Your task to perform on an android device: What is the news today? Image 0: 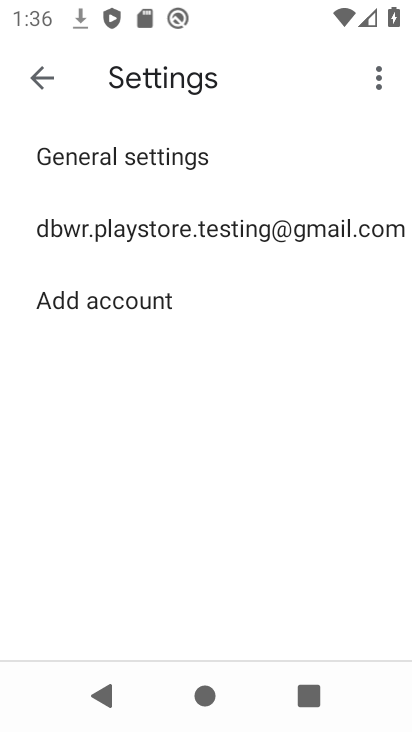
Step 0: press back button
Your task to perform on an android device: What is the news today? Image 1: 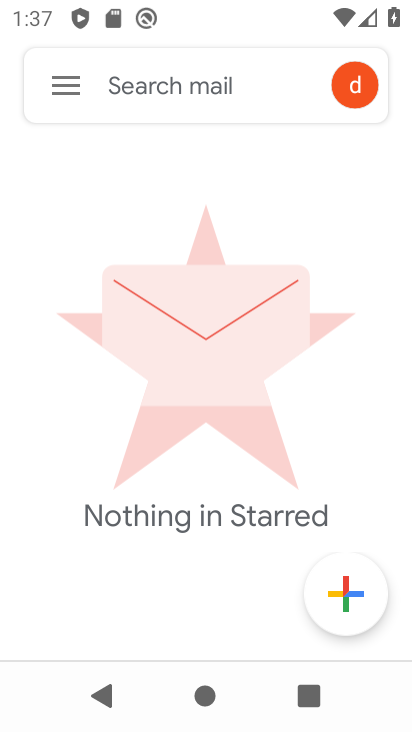
Step 1: press back button
Your task to perform on an android device: What is the news today? Image 2: 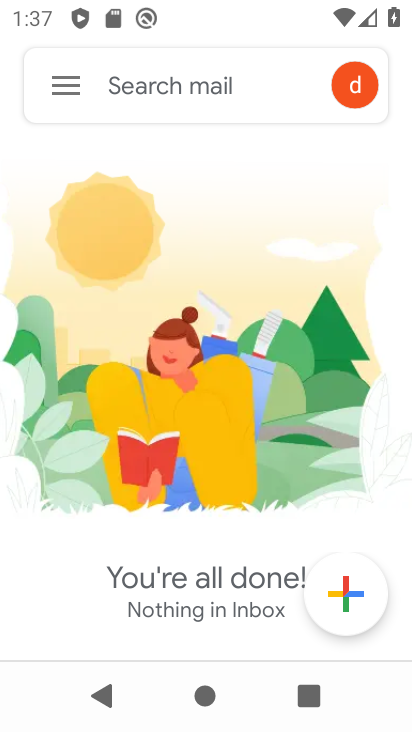
Step 2: press back button
Your task to perform on an android device: What is the news today? Image 3: 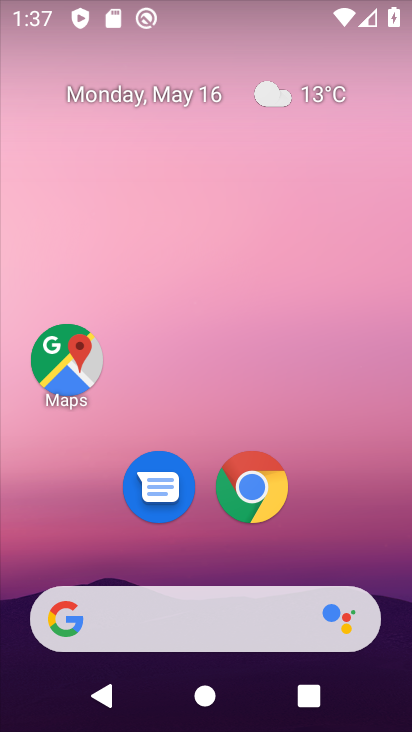
Step 3: drag from (356, 536) to (261, 0)
Your task to perform on an android device: What is the news today? Image 4: 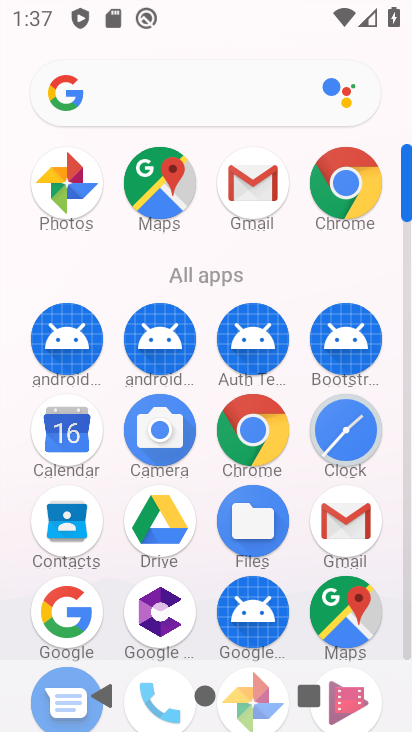
Step 4: drag from (11, 542) to (43, 273)
Your task to perform on an android device: What is the news today? Image 5: 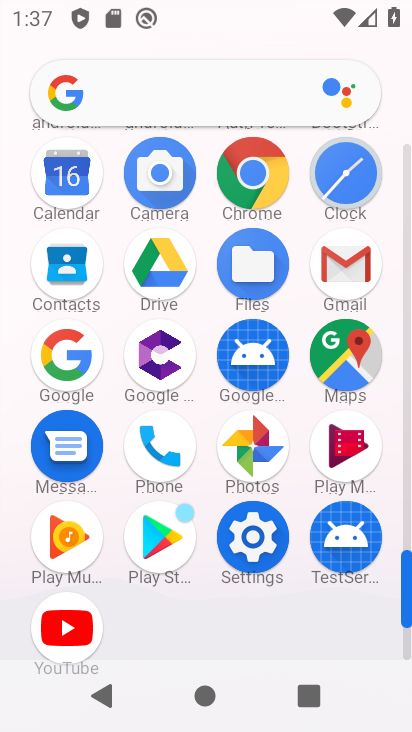
Step 5: click (256, 161)
Your task to perform on an android device: What is the news today? Image 6: 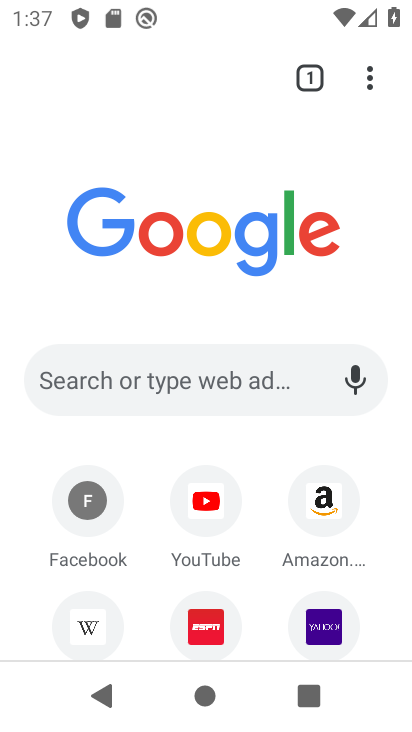
Step 6: click (199, 373)
Your task to perform on an android device: What is the news today? Image 7: 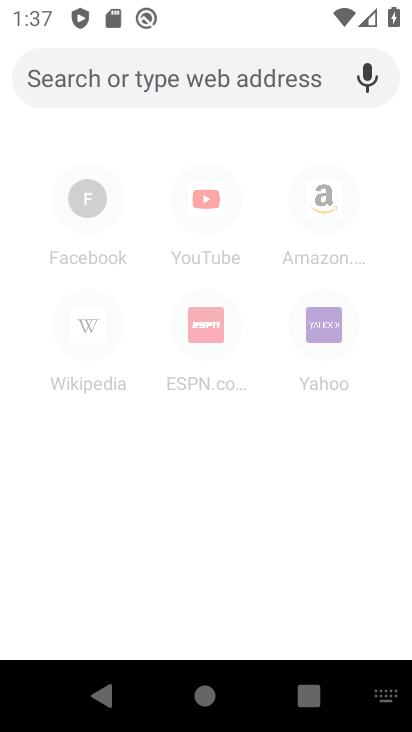
Step 7: click (62, 730)
Your task to perform on an android device: What is the news today? Image 8: 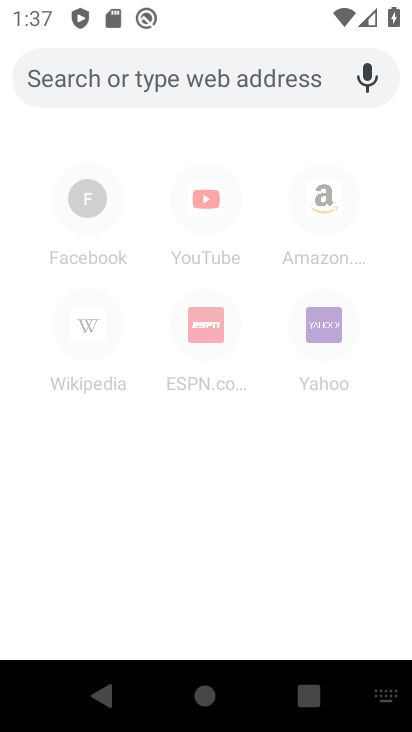
Step 8: type " What is the news today?"
Your task to perform on an android device: What is the news today? Image 9: 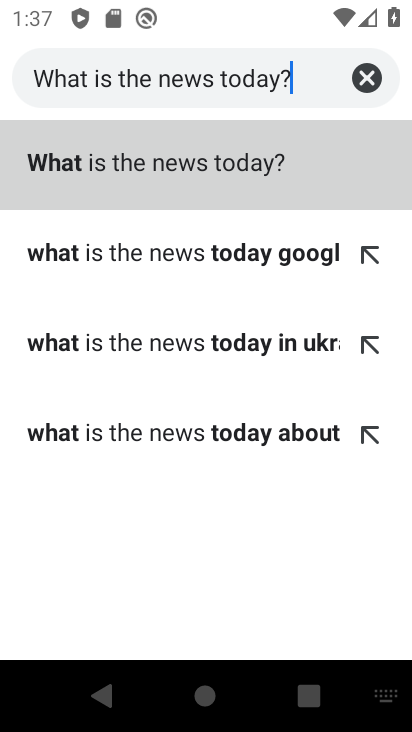
Step 9: type ""
Your task to perform on an android device: What is the news today? Image 10: 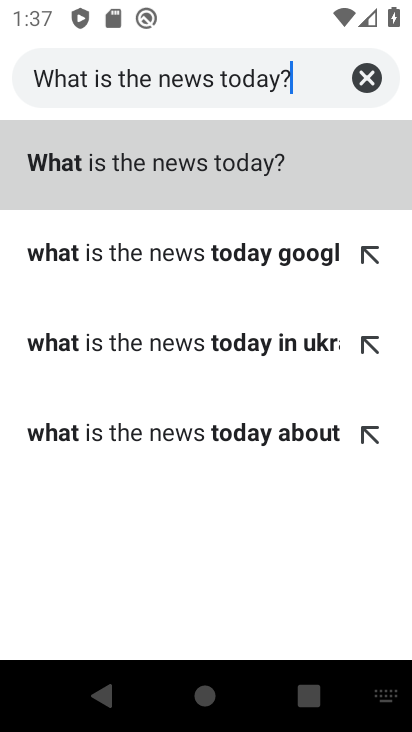
Step 10: click (179, 147)
Your task to perform on an android device: What is the news today? Image 11: 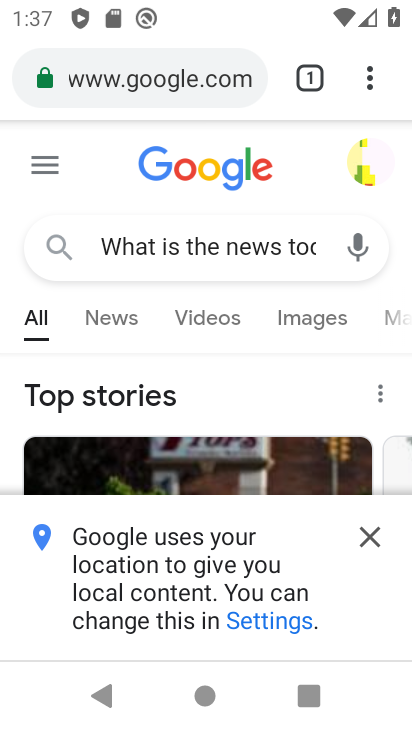
Step 11: click (369, 535)
Your task to perform on an android device: What is the news today? Image 12: 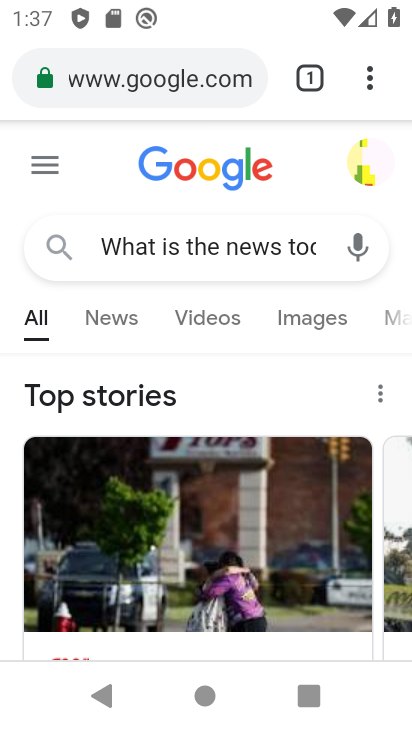
Step 12: task complete